Your task to perform on an android device: Show me productivity apps on the Play Store Image 0: 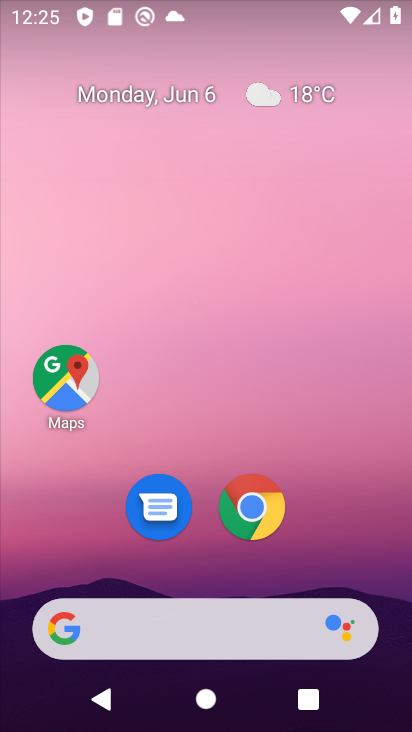
Step 0: drag from (229, 572) to (294, 99)
Your task to perform on an android device: Show me productivity apps on the Play Store Image 1: 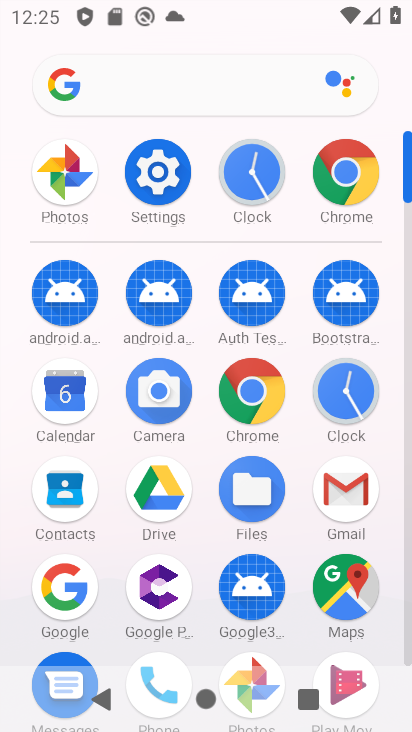
Step 1: drag from (223, 551) to (249, 339)
Your task to perform on an android device: Show me productivity apps on the Play Store Image 2: 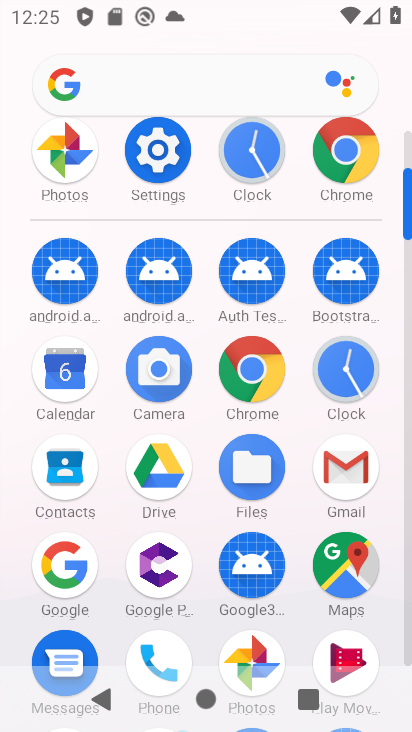
Step 2: drag from (217, 599) to (262, 295)
Your task to perform on an android device: Show me productivity apps on the Play Store Image 3: 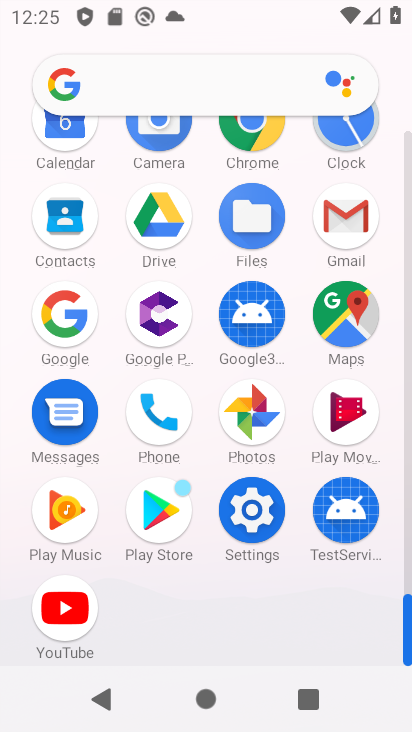
Step 3: click (160, 526)
Your task to perform on an android device: Show me productivity apps on the Play Store Image 4: 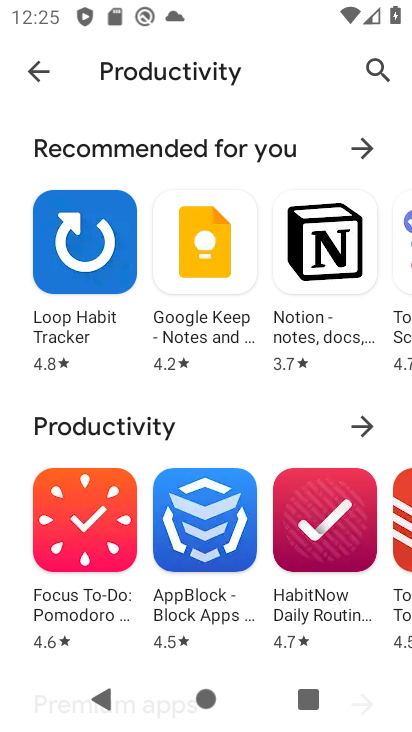
Step 4: task complete